Your task to perform on an android device: turn off translation in the chrome app Image 0: 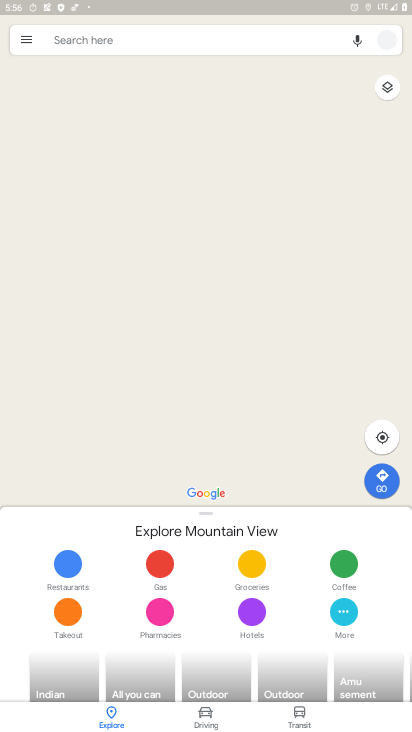
Step 0: click (227, 68)
Your task to perform on an android device: turn off translation in the chrome app Image 1: 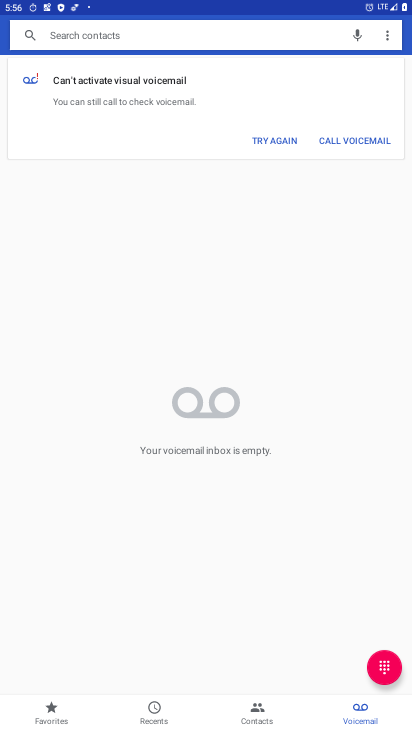
Step 1: press home button
Your task to perform on an android device: turn off translation in the chrome app Image 2: 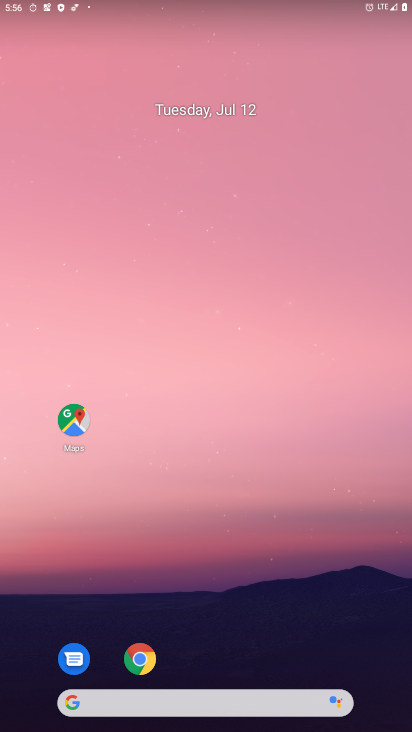
Step 2: drag from (238, 459) to (166, 9)
Your task to perform on an android device: turn off translation in the chrome app Image 3: 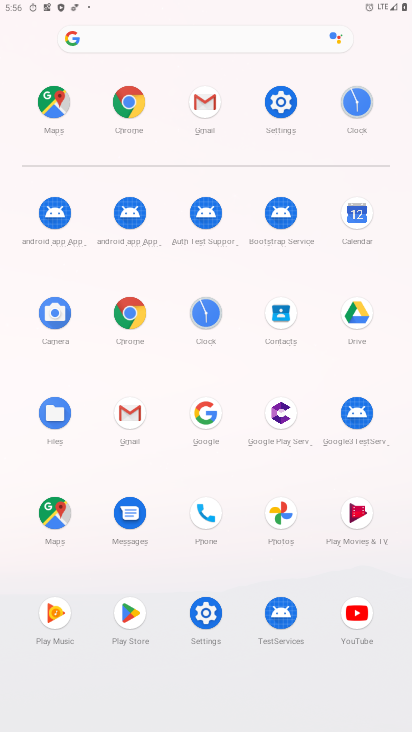
Step 3: click (118, 124)
Your task to perform on an android device: turn off translation in the chrome app Image 4: 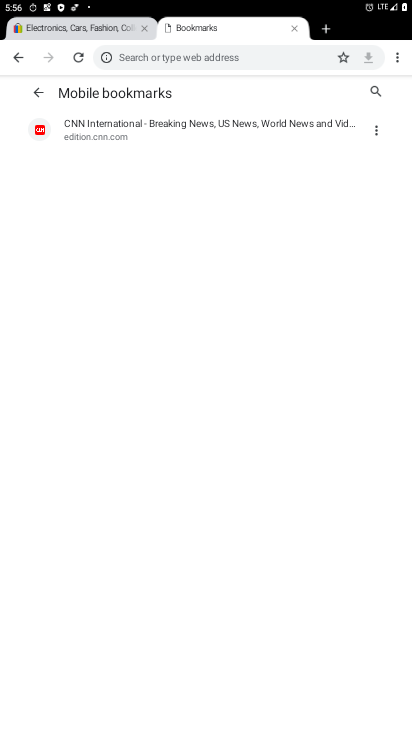
Step 4: click (400, 58)
Your task to perform on an android device: turn off translation in the chrome app Image 5: 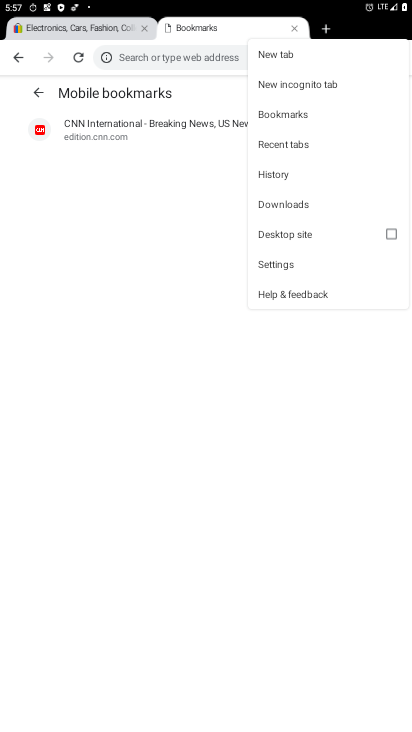
Step 5: click (288, 266)
Your task to perform on an android device: turn off translation in the chrome app Image 6: 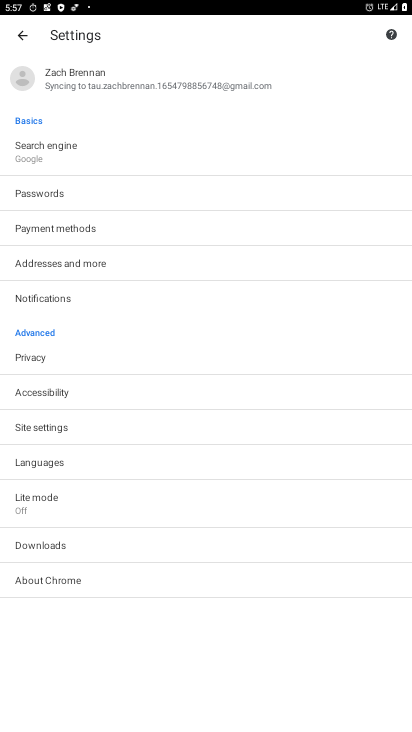
Step 6: click (20, 462)
Your task to perform on an android device: turn off translation in the chrome app Image 7: 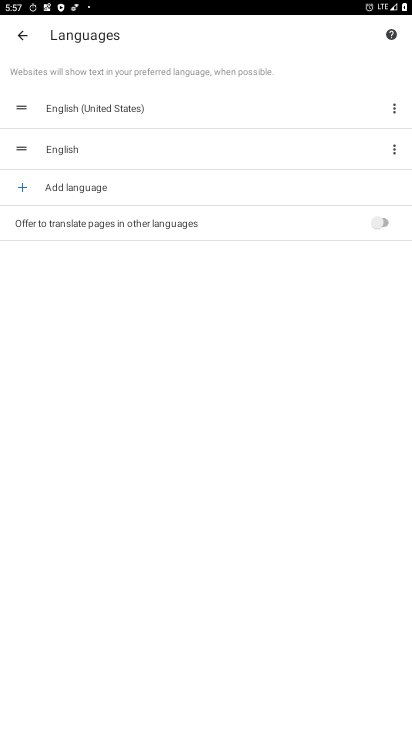
Step 7: task complete